Your task to perform on an android device: turn on the 12-hour format for clock Image 0: 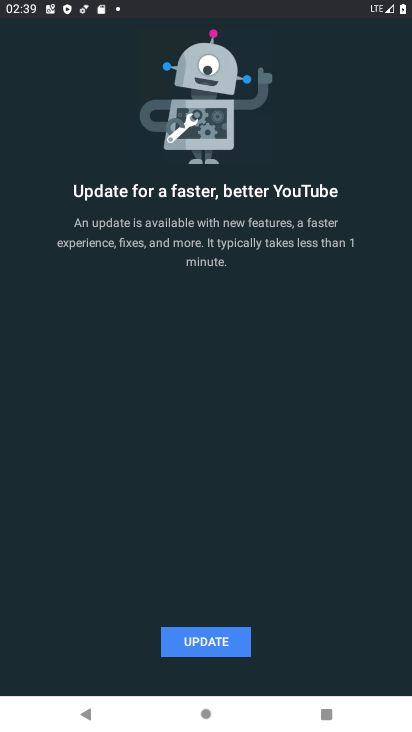
Step 0: press home button
Your task to perform on an android device: turn on the 12-hour format for clock Image 1: 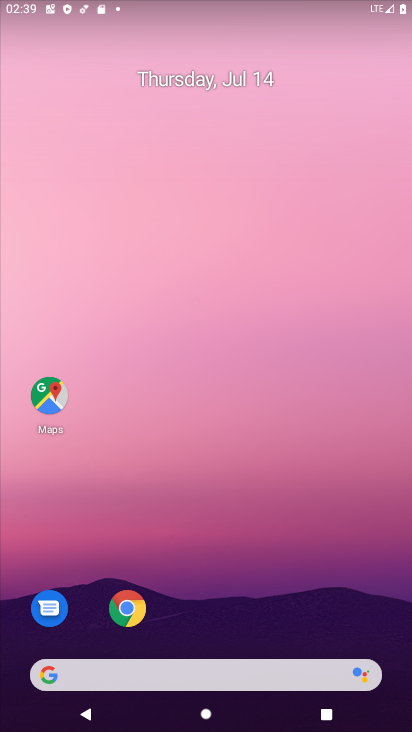
Step 1: drag from (26, 588) to (202, 114)
Your task to perform on an android device: turn on the 12-hour format for clock Image 2: 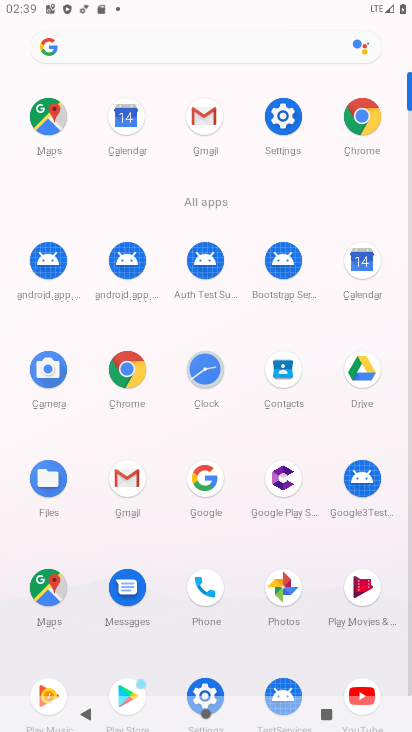
Step 2: click (202, 367)
Your task to perform on an android device: turn on the 12-hour format for clock Image 3: 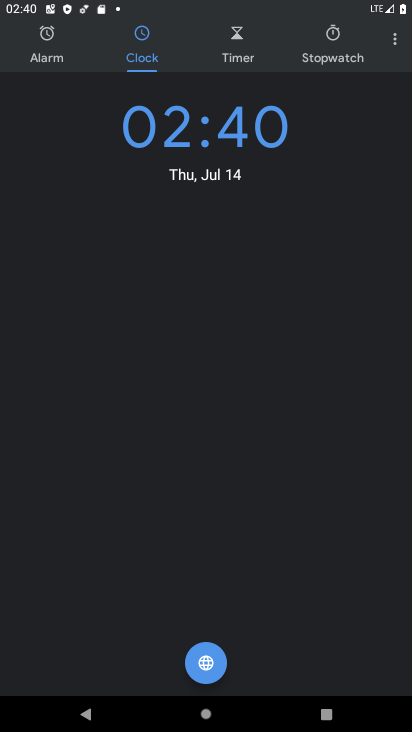
Step 3: click (391, 40)
Your task to perform on an android device: turn on the 12-hour format for clock Image 4: 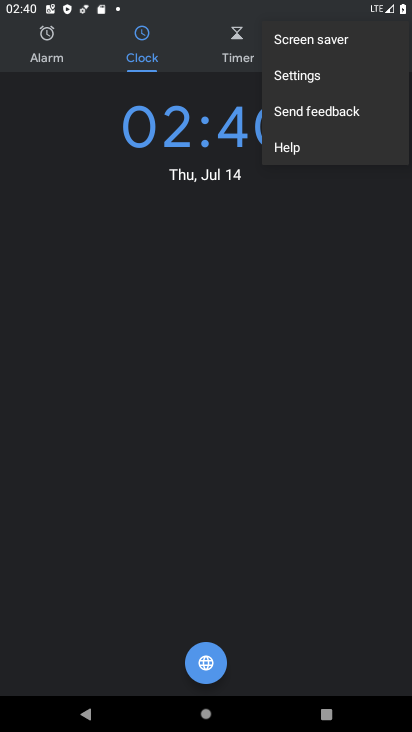
Step 4: click (286, 77)
Your task to perform on an android device: turn on the 12-hour format for clock Image 5: 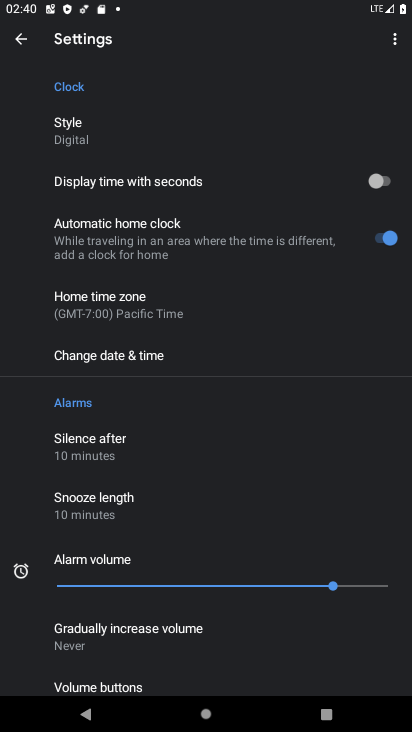
Step 5: click (114, 359)
Your task to perform on an android device: turn on the 12-hour format for clock Image 6: 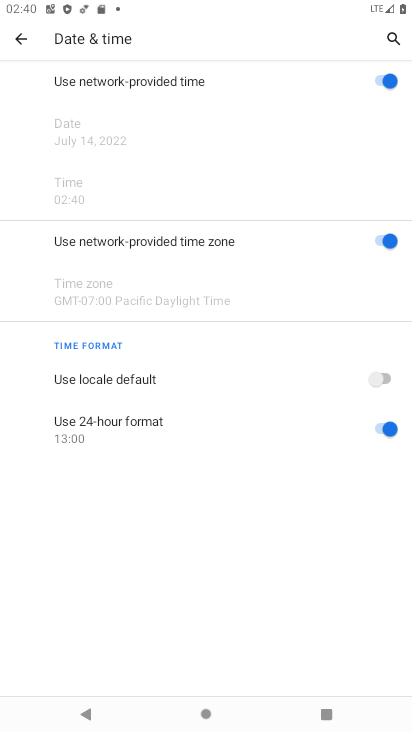
Step 6: click (373, 380)
Your task to perform on an android device: turn on the 12-hour format for clock Image 7: 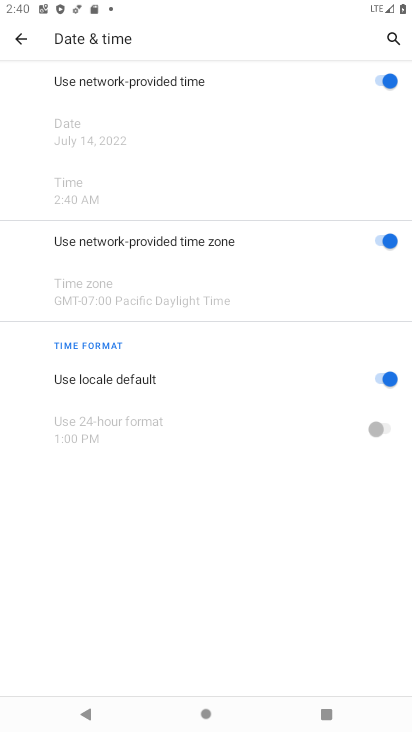
Step 7: task complete